Your task to perform on an android device: open wifi settings Image 0: 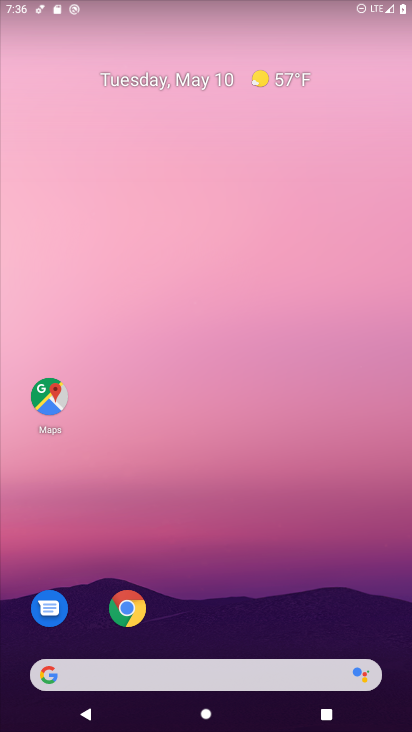
Step 0: drag from (335, 628) to (254, 70)
Your task to perform on an android device: open wifi settings Image 1: 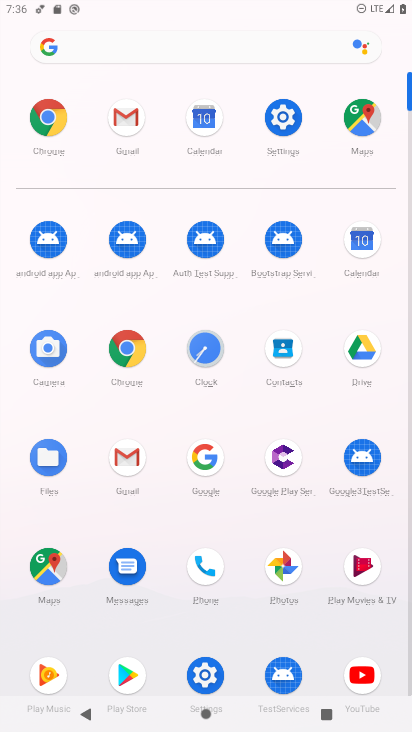
Step 1: click (212, 675)
Your task to perform on an android device: open wifi settings Image 2: 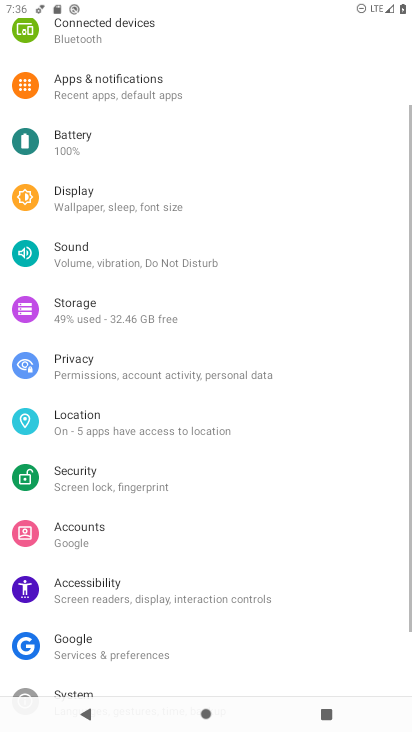
Step 2: drag from (174, 110) to (114, 652)
Your task to perform on an android device: open wifi settings Image 3: 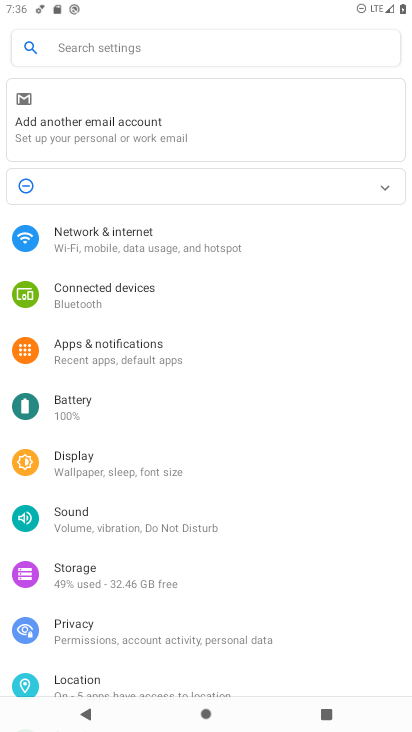
Step 3: click (96, 254)
Your task to perform on an android device: open wifi settings Image 4: 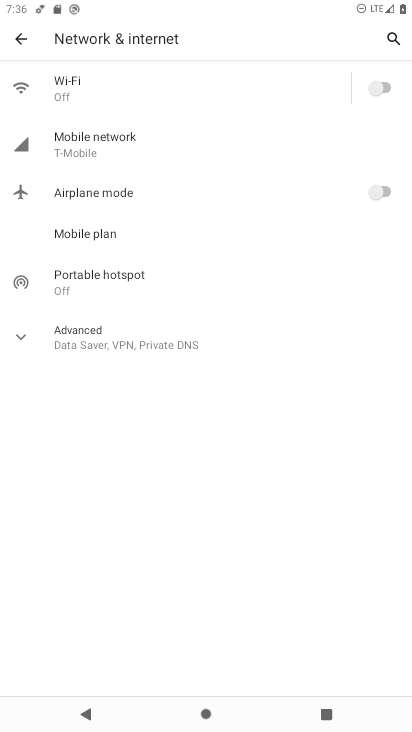
Step 4: click (119, 98)
Your task to perform on an android device: open wifi settings Image 5: 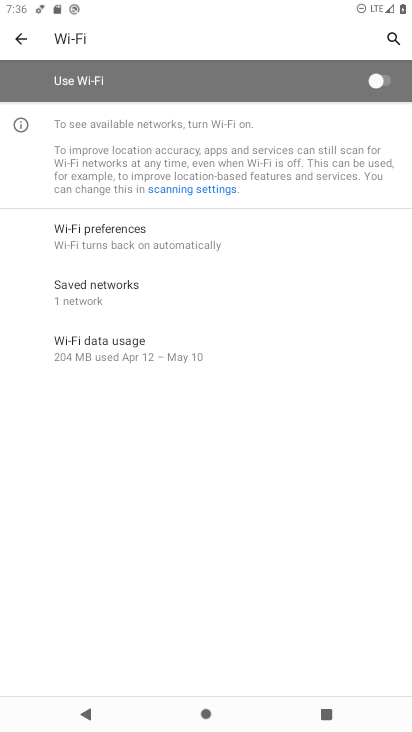
Step 5: task complete